Your task to perform on an android device: see creations saved in the google photos Image 0: 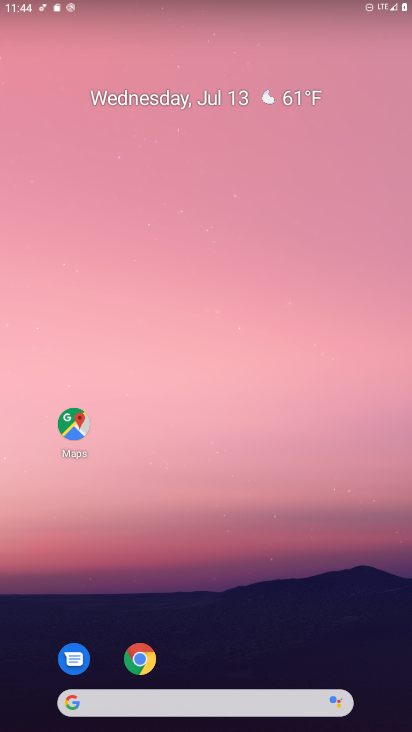
Step 0: drag from (380, 611) to (342, 116)
Your task to perform on an android device: see creations saved in the google photos Image 1: 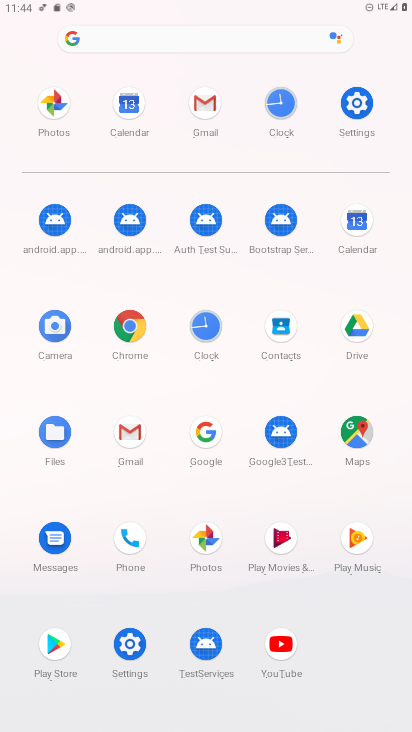
Step 1: click (203, 535)
Your task to perform on an android device: see creations saved in the google photos Image 2: 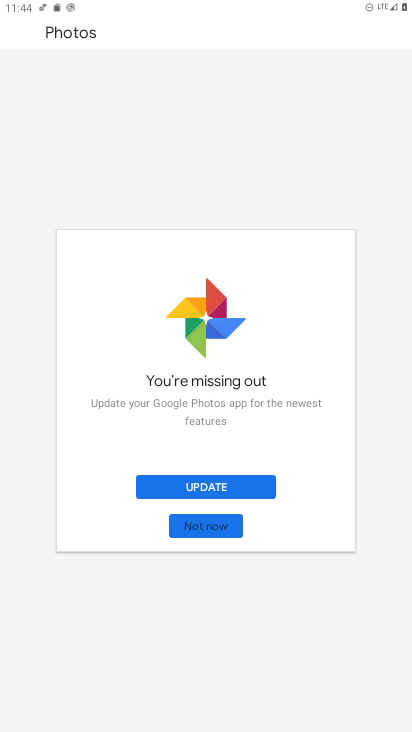
Step 2: click (199, 482)
Your task to perform on an android device: see creations saved in the google photos Image 3: 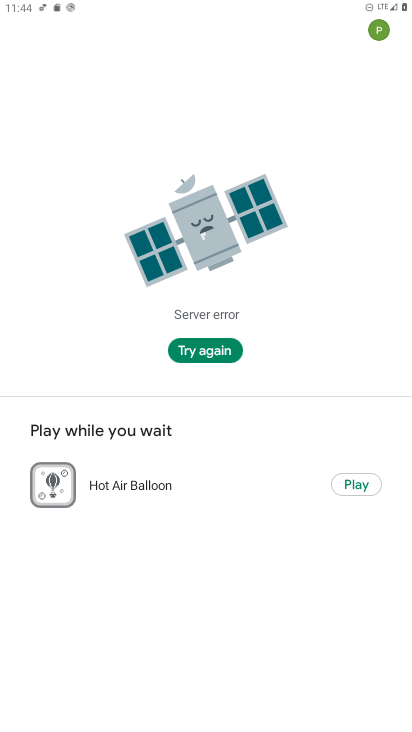
Step 3: click (197, 350)
Your task to perform on an android device: see creations saved in the google photos Image 4: 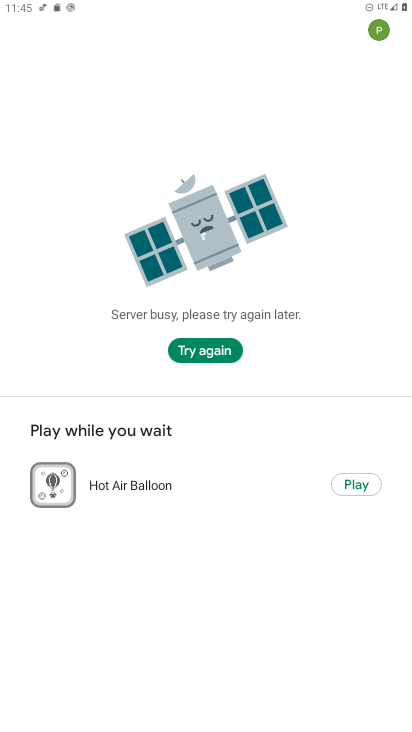
Step 4: task complete